Your task to perform on an android device: Open eBay Image 0: 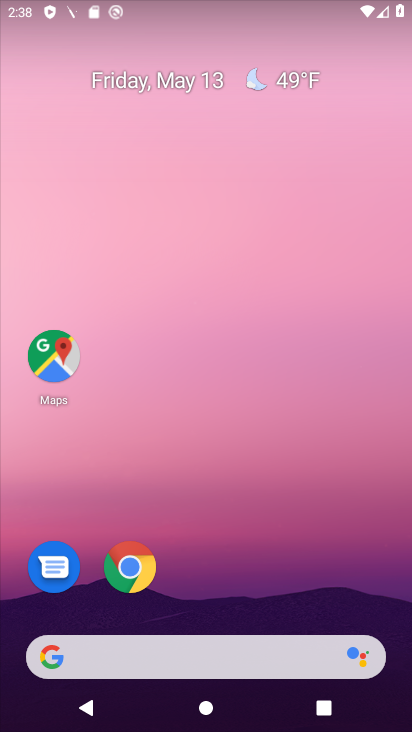
Step 0: click (121, 576)
Your task to perform on an android device: Open eBay Image 1: 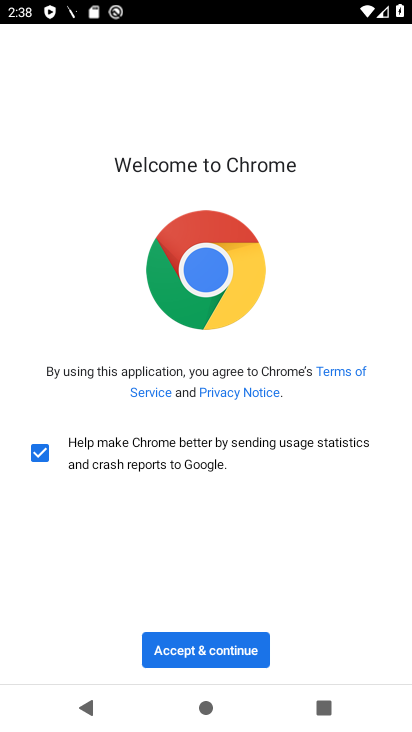
Step 1: click (199, 646)
Your task to perform on an android device: Open eBay Image 2: 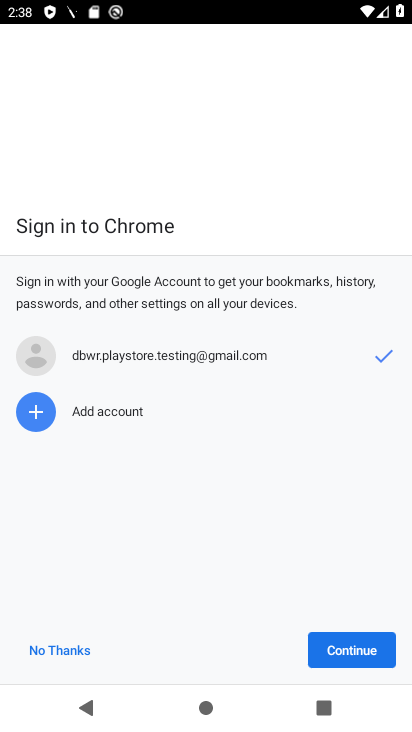
Step 2: click (336, 654)
Your task to perform on an android device: Open eBay Image 3: 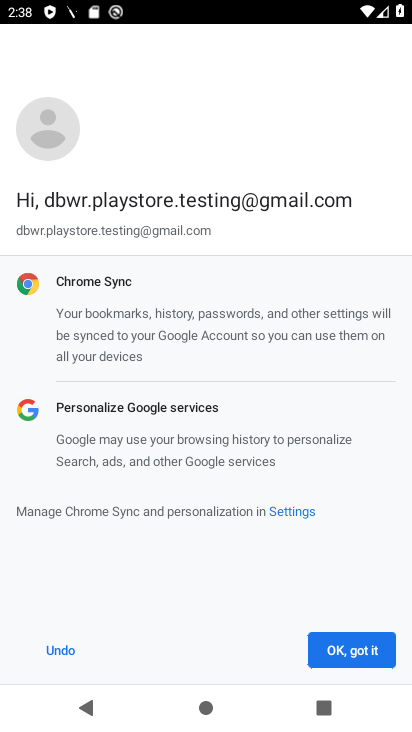
Step 3: click (329, 654)
Your task to perform on an android device: Open eBay Image 4: 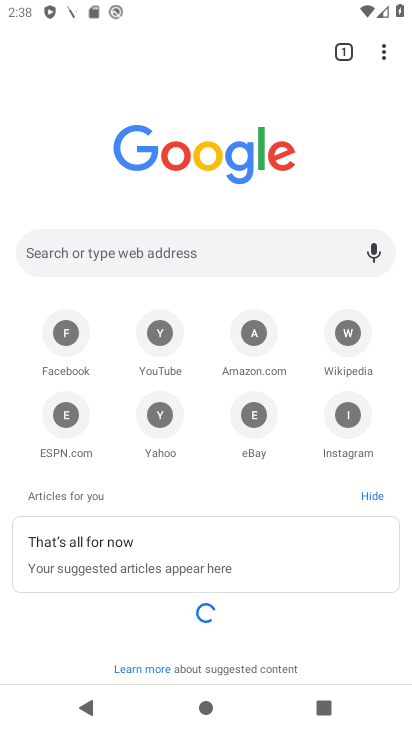
Step 4: click (249, 410)
Your task to perform on an android device: Open eBay Image 5: 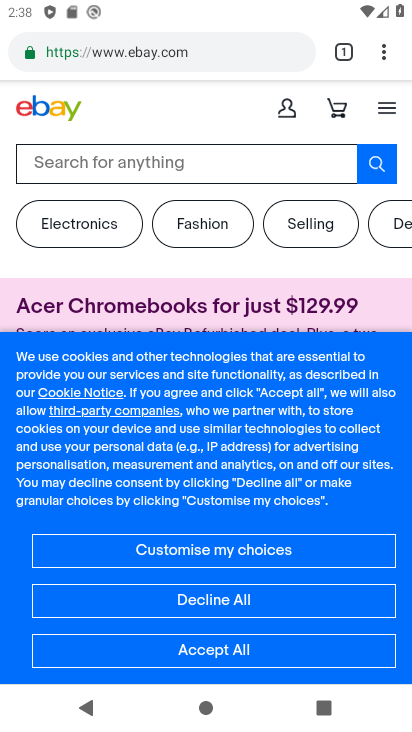
Step 5: task complete